Your task to perform on an android device: set an alarm Image 0: 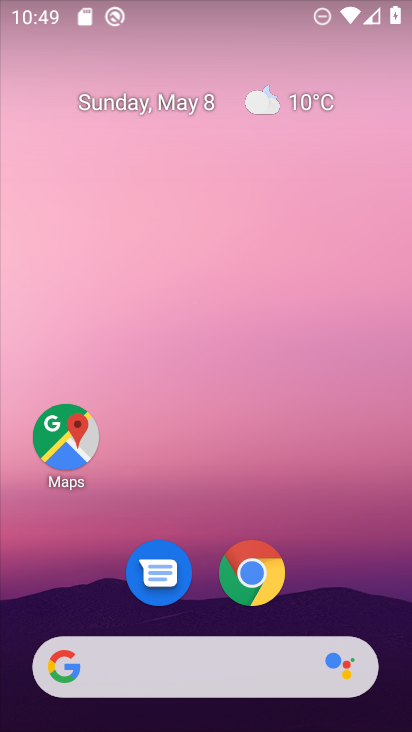
Step 0: drag from (337, 621) to (345, 172)
Your task to perform on an android device: set an alarm Image 1: 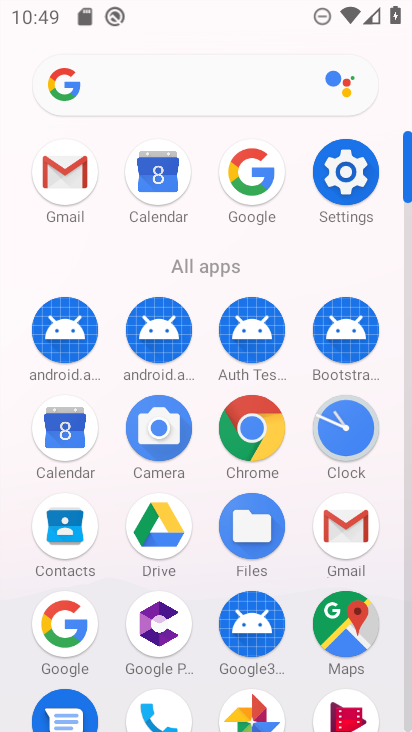
Step 1: click (328, 406)
Your task to perform on an android device: set an alarm Image 2: 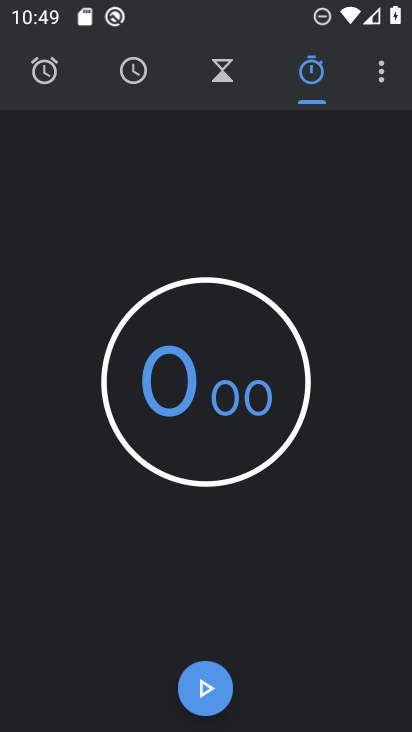
Step 2: click (36, 64)
Your task to perform on an android device: set an alarm Image 3: 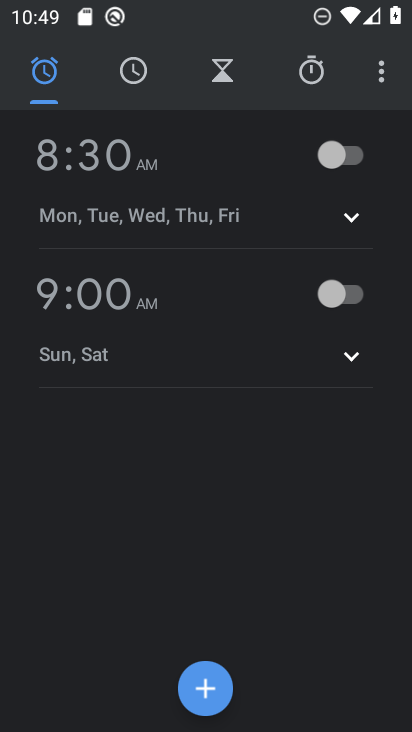
Step 3: click (207, 674)
Your task to perform on an android device: set an alarm Image 4: 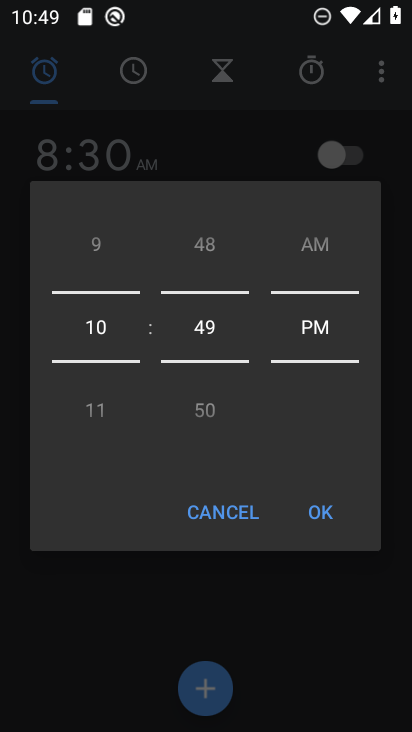
Step 4: click (314, 513)
Your task to perform on an android device: set an alarm Image 5: 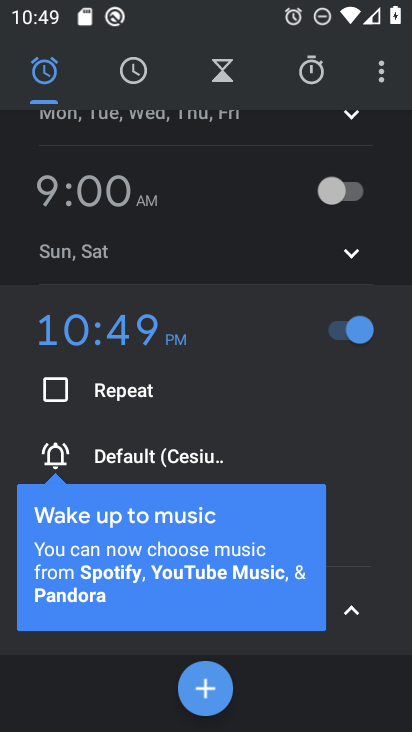
Step 5: task complete